Your task to perform on an android device: open app "DuckDuckGo Privacy Browser" (install if not already installed) and go to login screen Image 0: 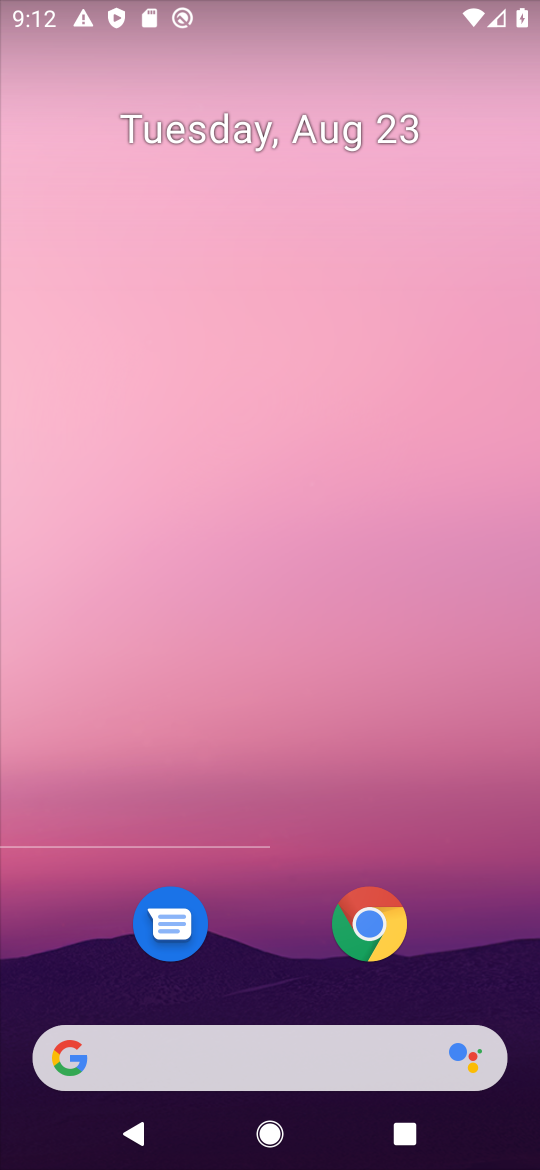
Step 0: press home button
Your task to perform on an android device: open app "DuckDuckGo Privacy Browser" (install if not already installed) and go to login screen Image 1: 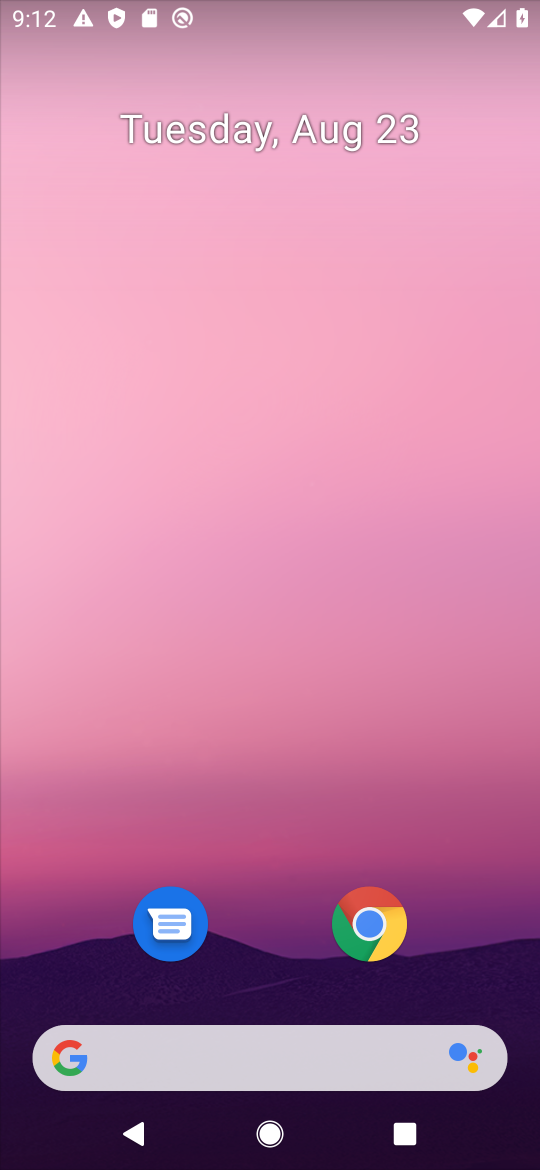
Step 1: press home button
Your task to perform on an android device: open app "DuckDuckGo Privacy Browser" (install if not already installed) and go to login screen Image 2: 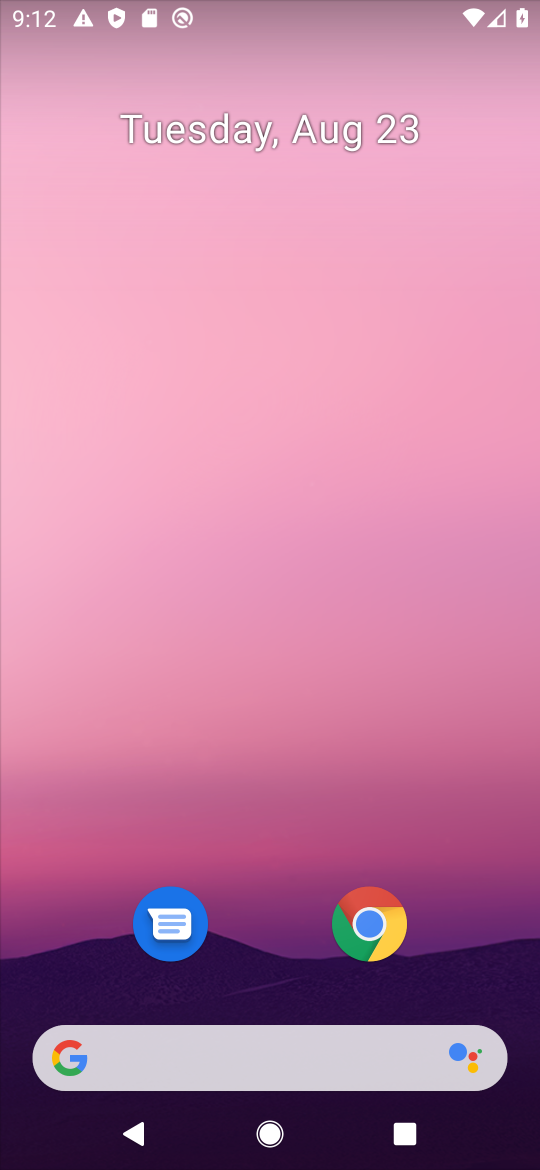
Step 2: drag from (480, 908) to (509, 104)
Your task to perform on an android device: open app "DuckDuckGo Privacy Browser" (install if not already installed) and go to login screen Image 3: 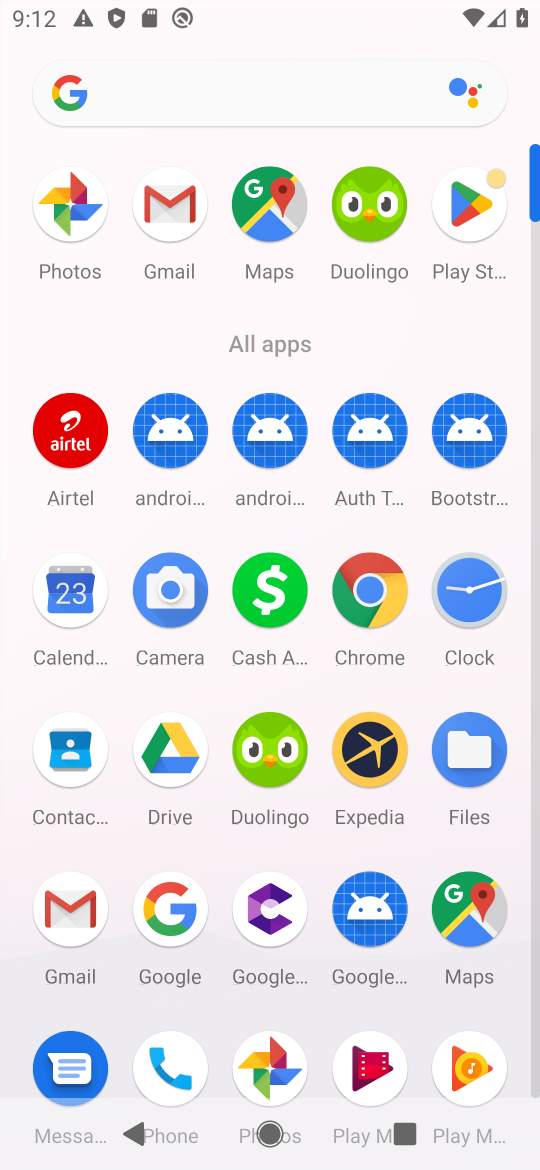
Step 3: click (474, 203)
Your task to perform on an android device: open app "DuckDuckGo Privacy Browser" (install if not already installed) and go to login screen Image 4: 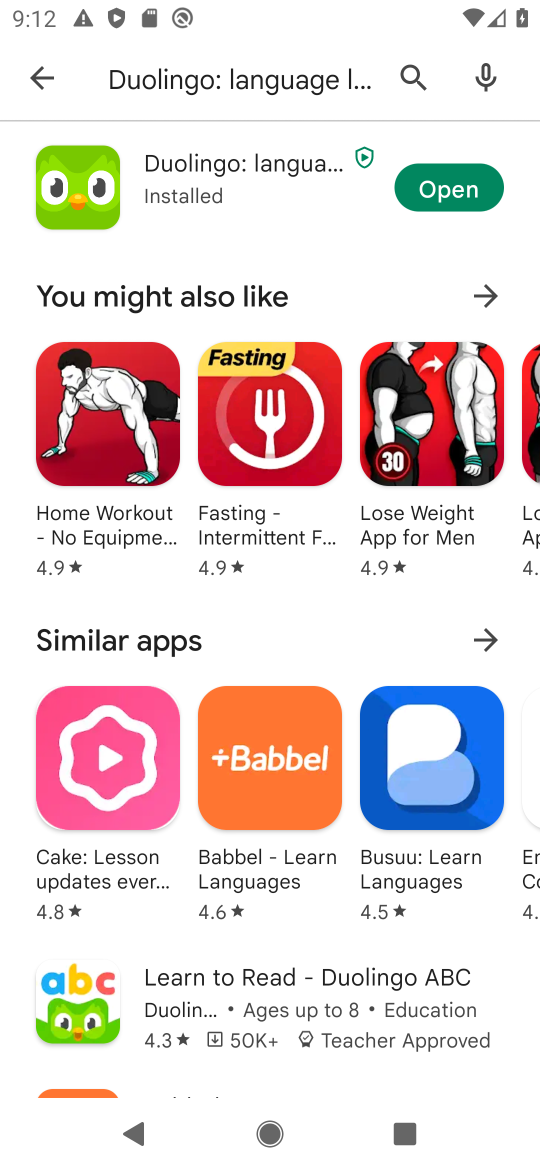
Step 4: press back button
Your task to perform on an android device: open app "DuckDuckGo Privacy Browser" (install if not already installed) and go to login screen Image 5: 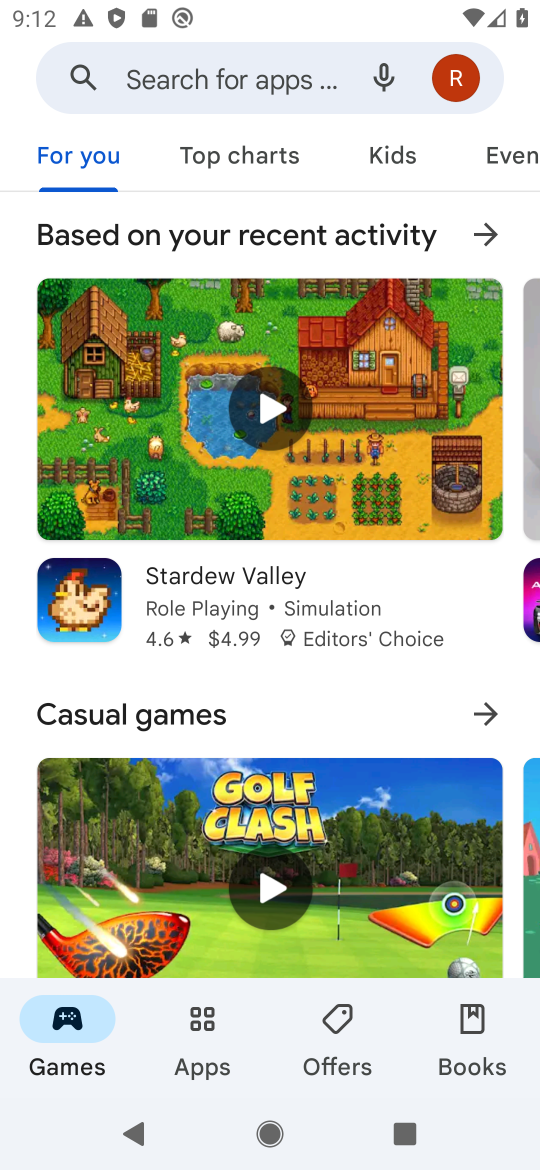
Step 5: click (245, 76)
Your task to perform on an android device: open app "DuckDuckGo Privacy Browser" (install if not already installed) and go to login screen Image 6: 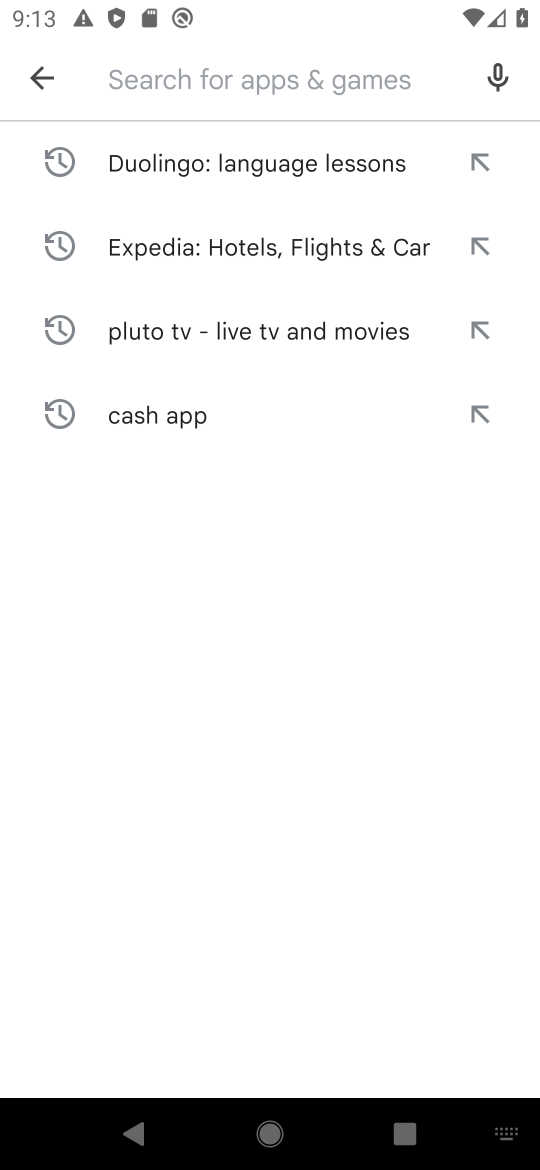
Step 6: type "DuckDuckGo Privacy Browser"
Your task to perform on an android device: open app "DuckDuckGo Privacy Browser" (install if not already installed) and go to login screen Image 7: 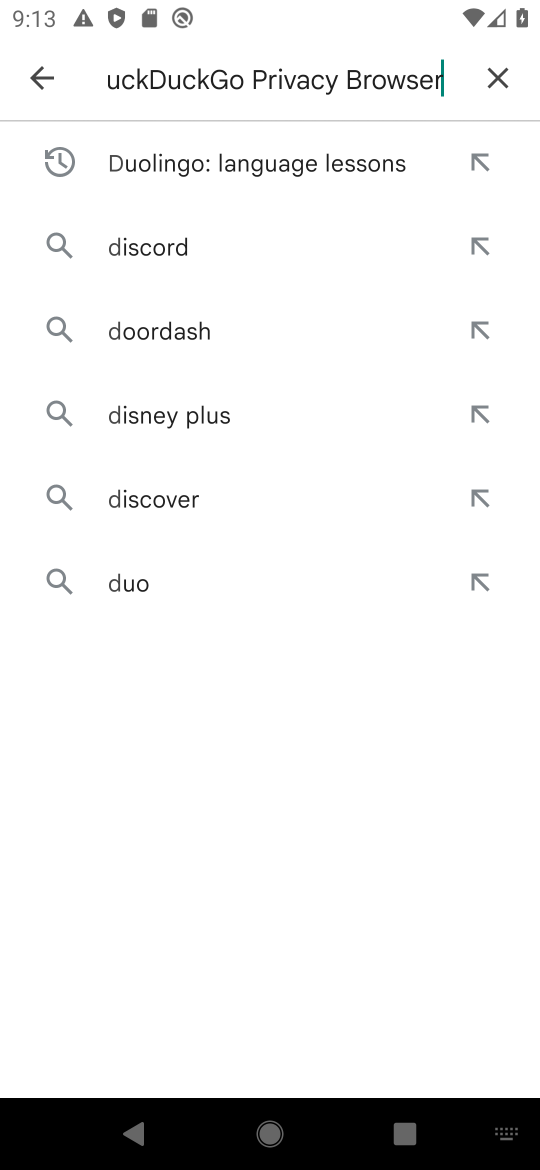
Step 7: press enter
Your task to perform on an android device: open app "DuckDuckGo Privacy Browser" (install if not already installed) and go to login screen Image 8: 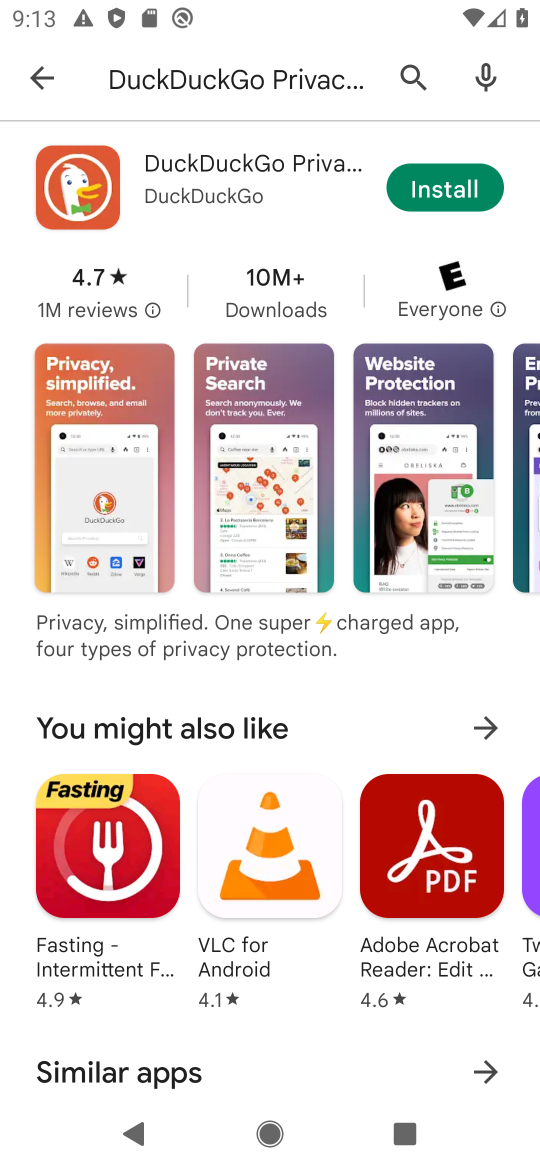
Step 8: click (441, 186)
Your task to perform on an android device: open app "DuckDuckGo Privacy Browser" (install if not already installed) and go to login screen Image 9: 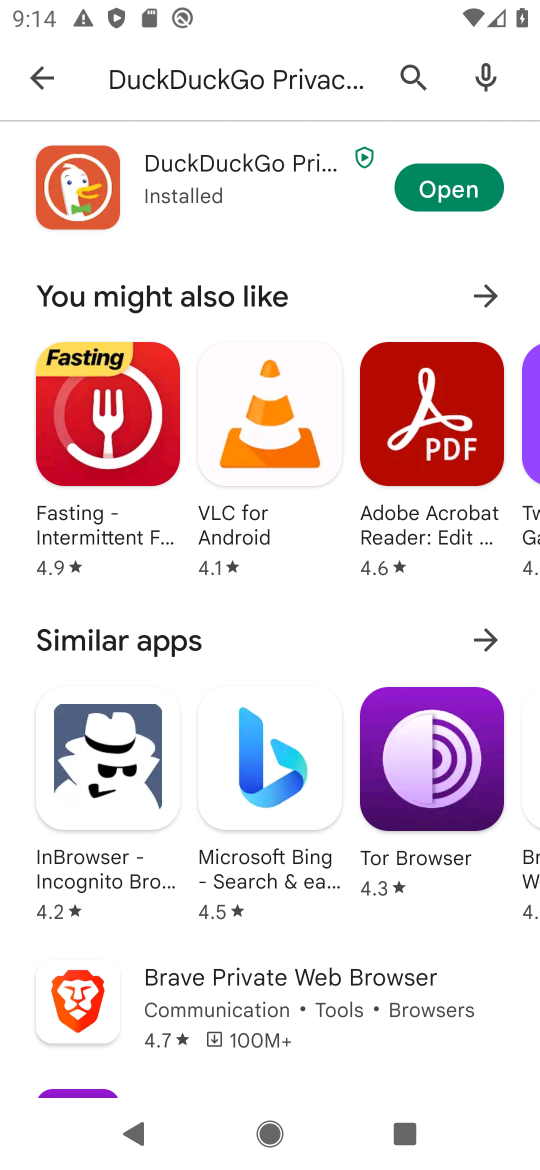
Step 9: click (431, 189)
Your task to perform on an android device: open app "DuckDuckGo Privacy Browser" (install if not already installed) and go to login screen Image 10: 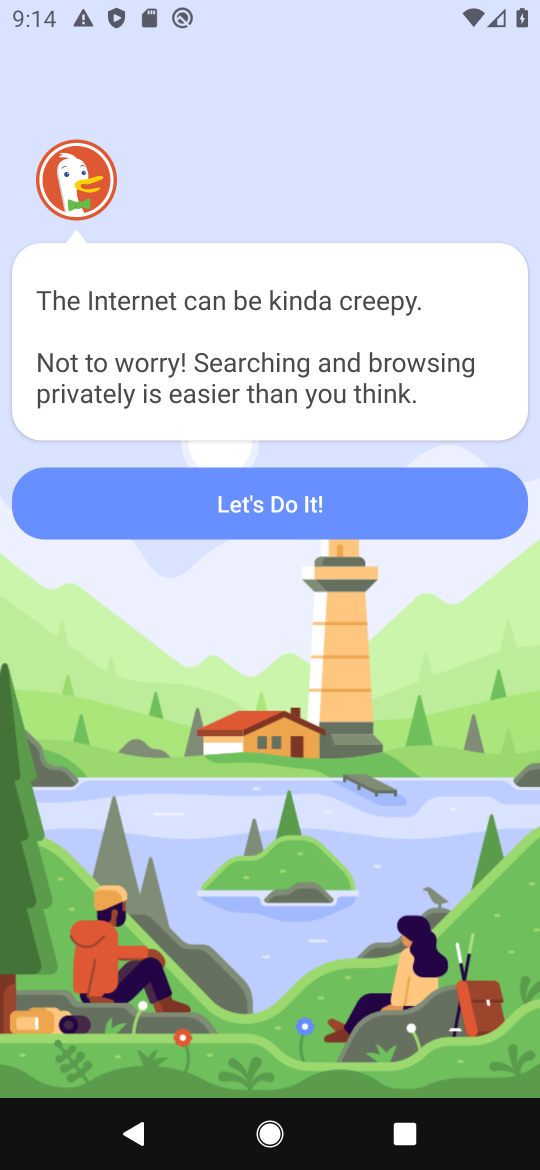
Step 10: click (300, 498)
Your task to perform on an android device: open app "DuckDuckGo Privacy Browser" (install if not already installed) and go to login screen Image 11: 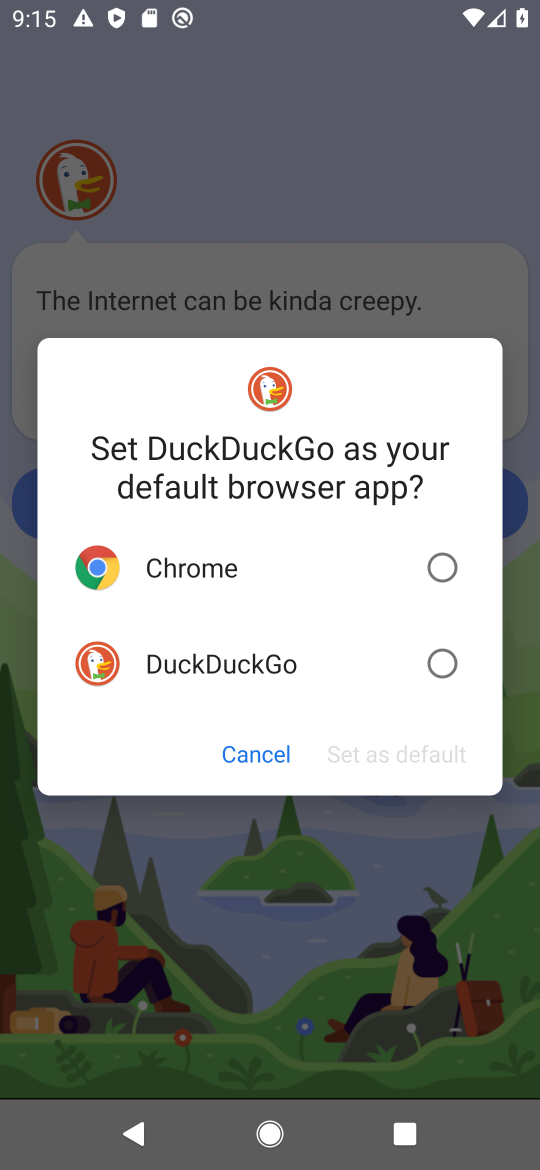
Step 11: click (435, 657)
Your task to perform on an android device: open app "DuckDuckGo Privacy Browser" (install if not already installed) and go to login screen Image 12: 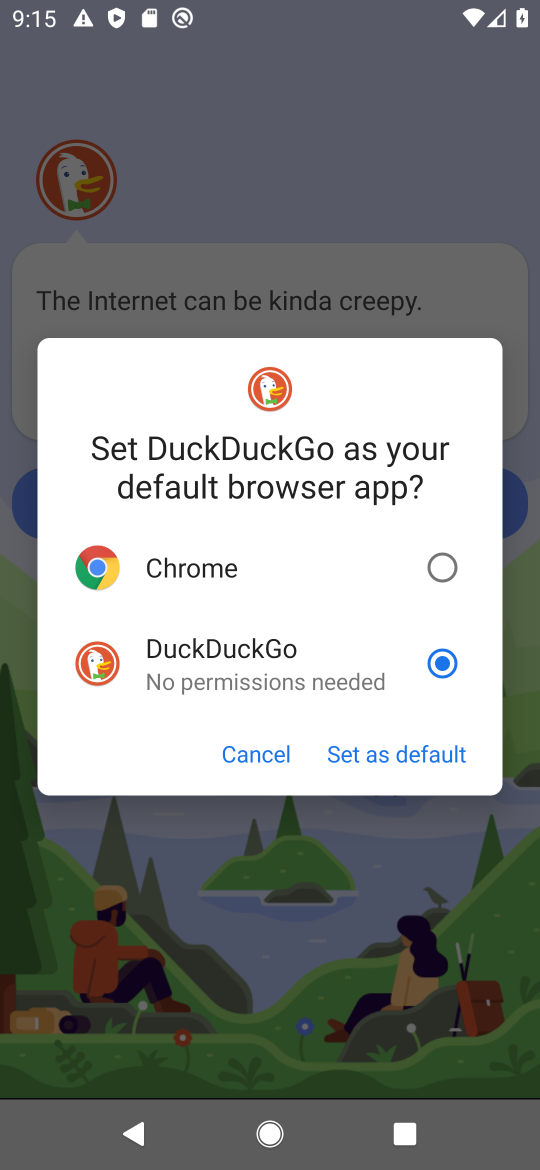
Step 12: click (405, 752)
Your task to perform on an android device: open app "DuckDuckGo Privacy Browser" (install if not already installed) and go to login screen Image 13: 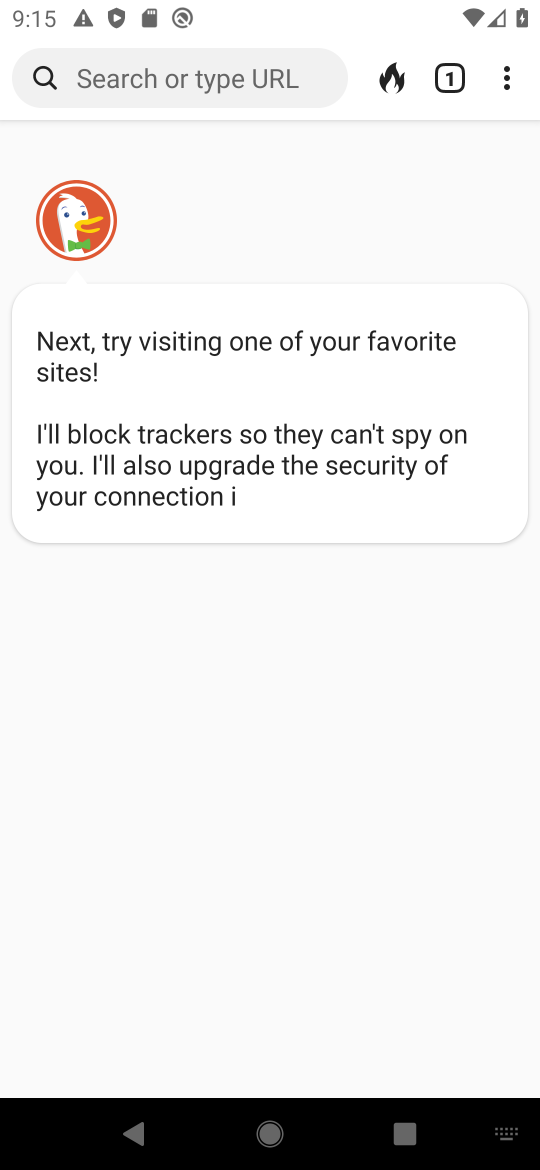
Step 13: task complete